Your task to perform on an android device: Go to calendar. Show me events next week Image 0: 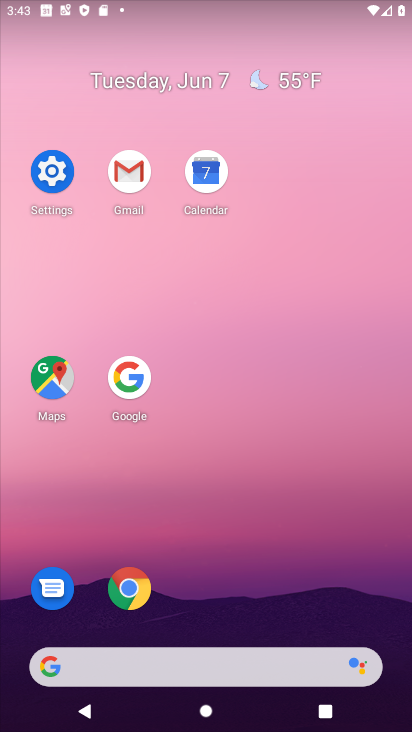
Step 0: click (218, 180)
Your task to perform on an android device: Go to calendar. Show me events next week Image 1: 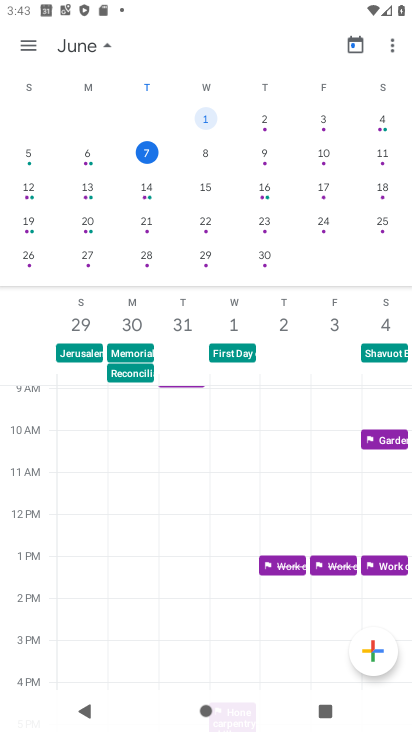
Step 1: click (21, 52)
Your task to perform on an android device: Go to calendar. Show me events next week Image 2: 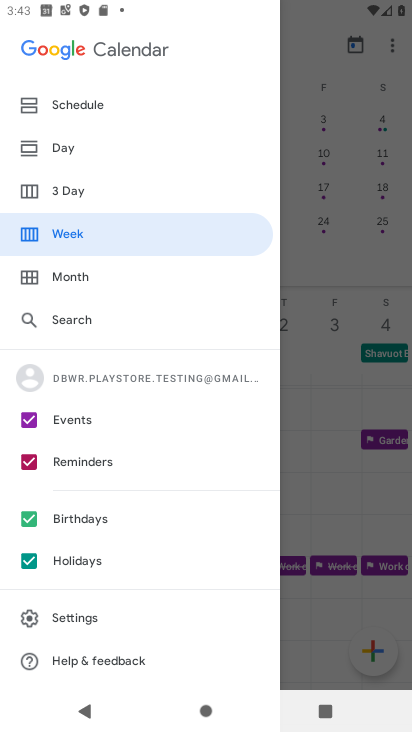
Step 2: click (100, 237)
Your task to perform on an android device: Go to calendar. Show me events next week Image 3: 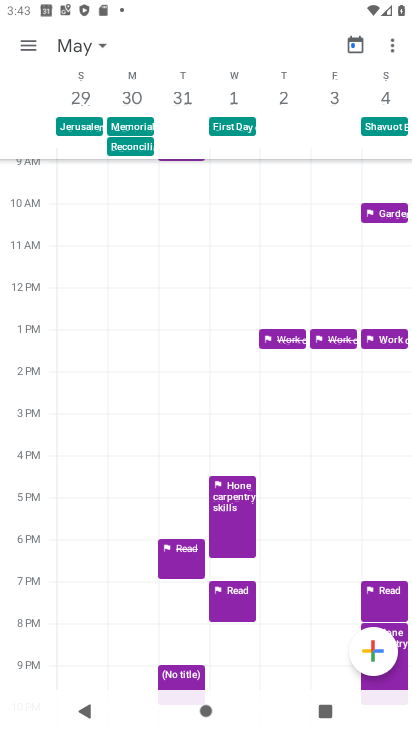
Step 3: task complete